Your task to perform on an android device: Play the last video I watched on Youtube Image 0: 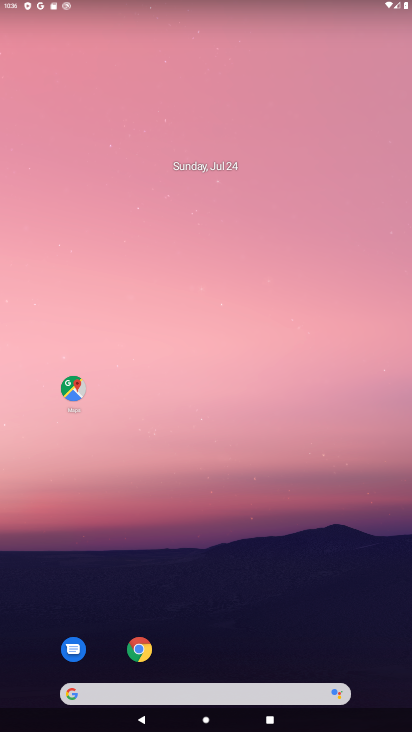
Step 0: drag from (303, 627) to (293, 109)
Your task to perform on an android device: Play the last video I watched on Youtube Image 1: 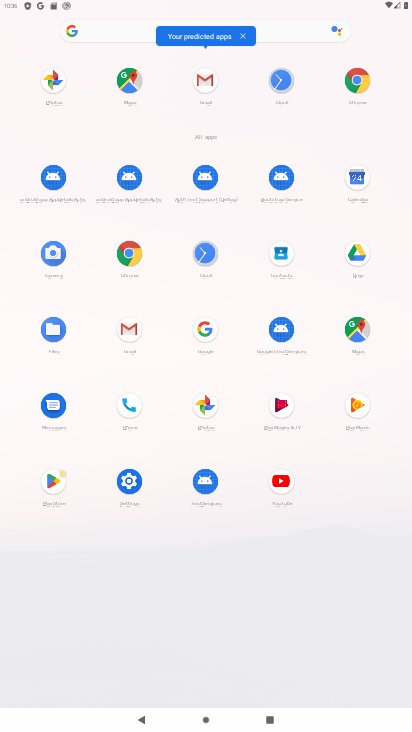
Step 1: click (285, 485)
Your task to perform on an android device: Play the last video I watched on Youtube Image 2: 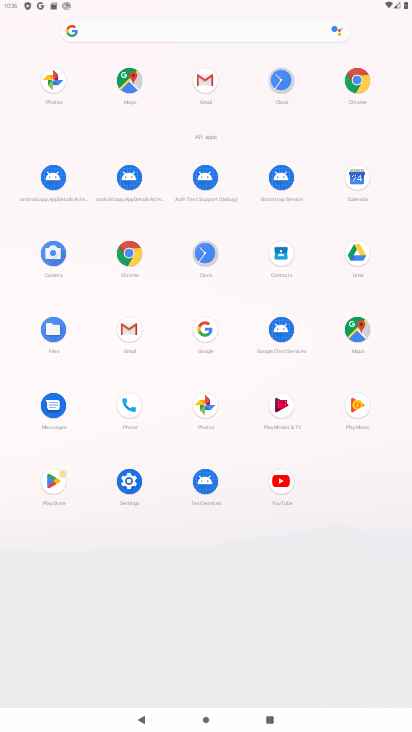
Step 2: click (279, 476)
Your task to perform on an android device: Play the last video I watched on Youtube Image 3: 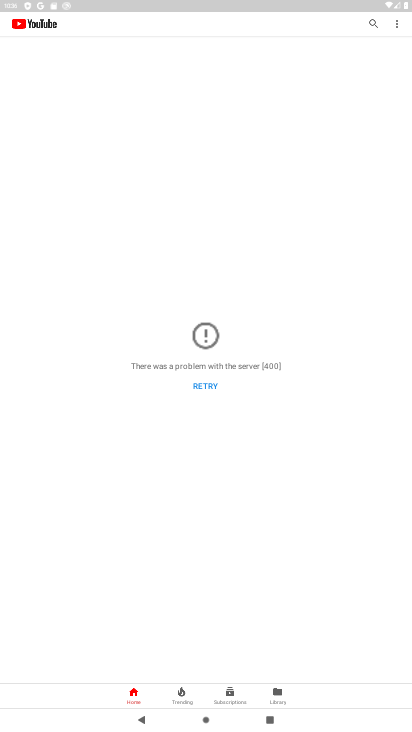
Step 3: click (207, 384)
Your task to perform on an android device: Play the last video I watched on Youtube Image 4: 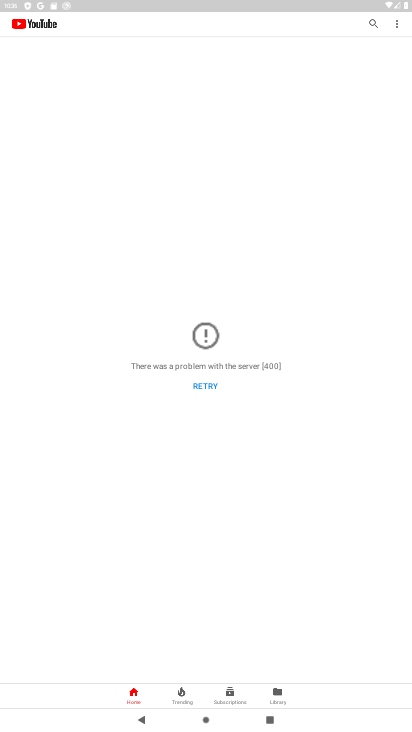
Step 4: click (207, 384)
Your task to perform on an android device: Play the last video I watched on Youtube Image 5: 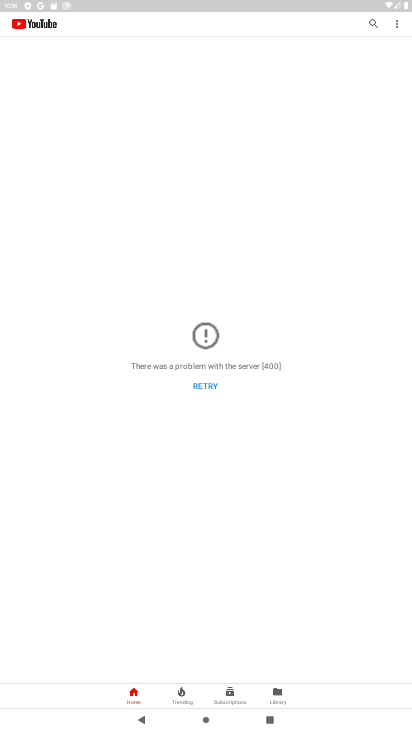
Step 5: click (207, 384)
Your task to perform on an android device: Play the last video I watched on Youtube Image 6: 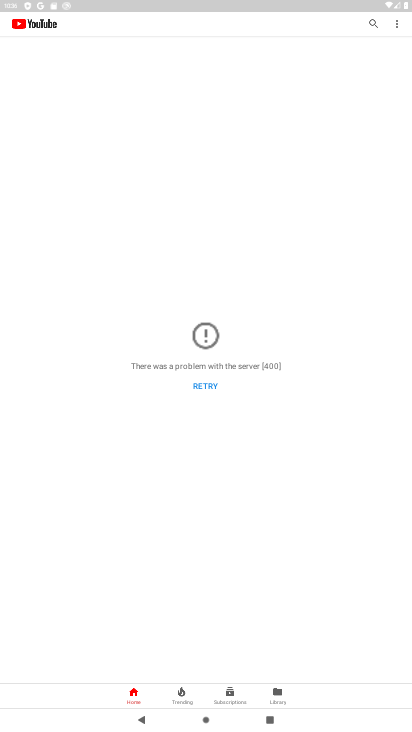
Step 6: task complete